Your task to perform on an android device: Open Google Chrome and click the shortcut for Amazon.com Image 0: 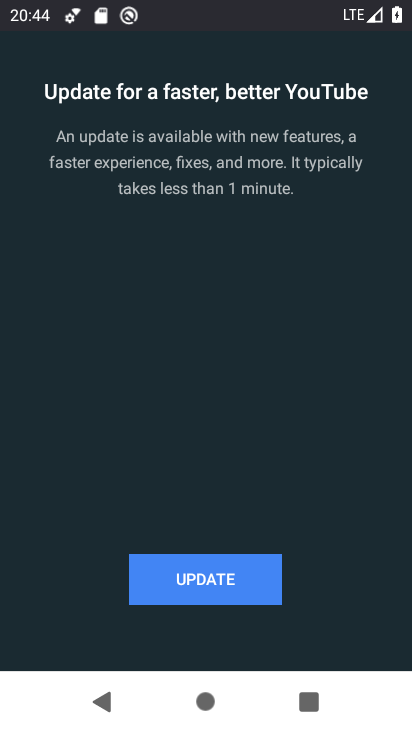
Step 0: press home button
Your task to perform on an android device: Open Google Chrome and click the shortcut for Amazon.com Image 1: 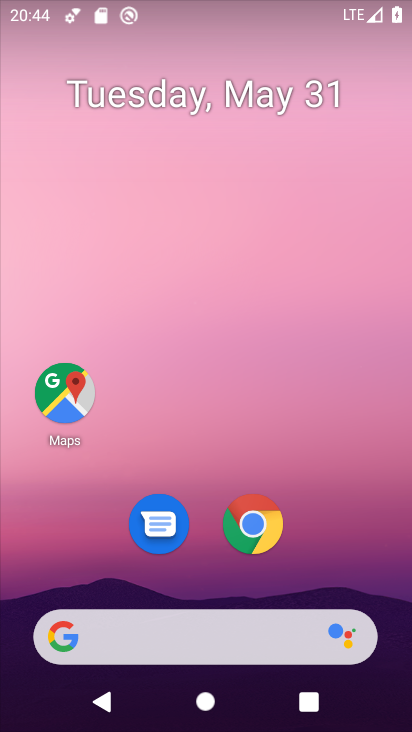
Step 1: click (256, 507)
Your task to perform on an android device: Open Google Chrome and click the shortcut for Amazon.com Image 2: 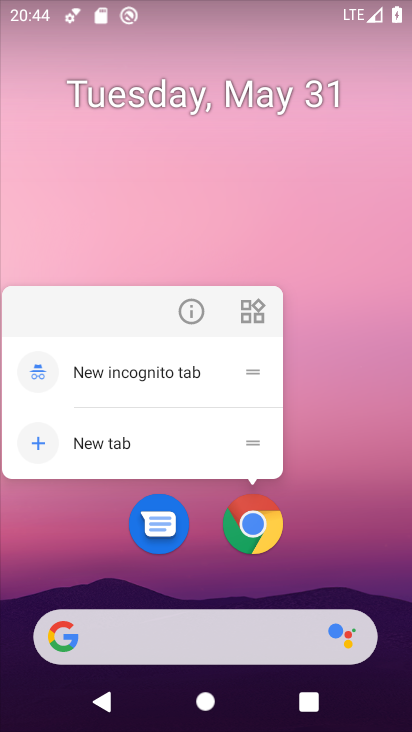
Step 2: click (256, 507)
Your task to perform on an android device: Open Google Chrome and click the shortcut for Amazon.com Image 3: 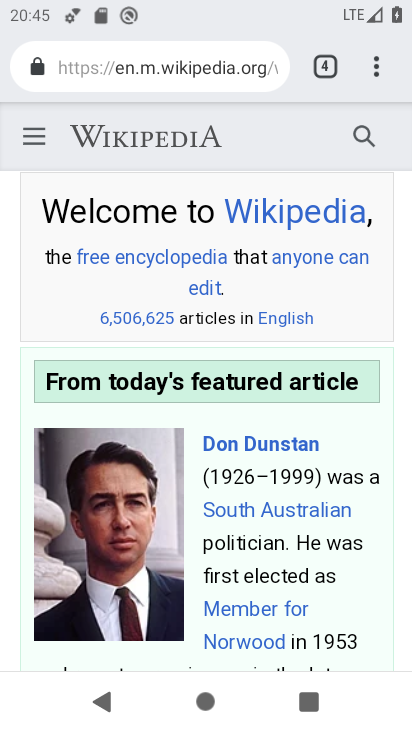
Step 3: click (374, 63)
Your task to perform on an android device: Open Google Chrome and click the shortcut for Amazon.com Image 4: 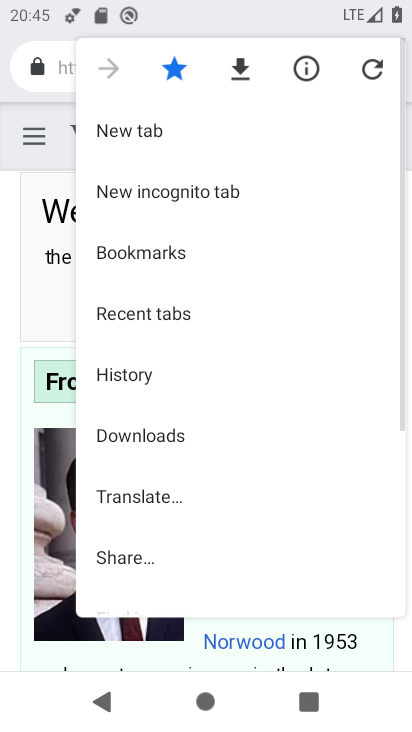
Step 4: click (304, 122)
Your task to perform on an android device: Open Google Chrome and click the shortcut for Amazon.com Image 5: 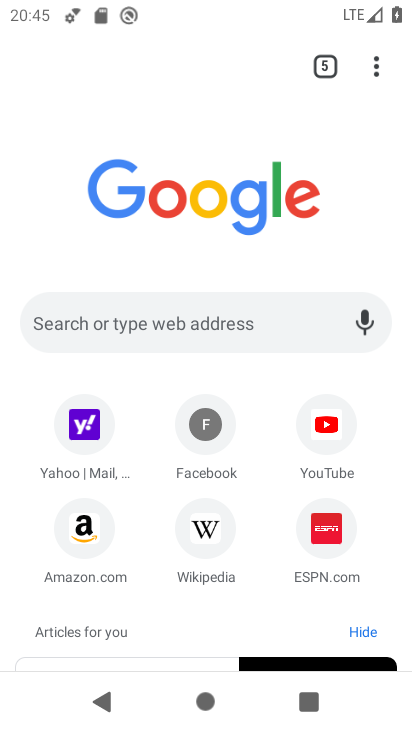
Step 5: click (79, 513)
Your task to perform on an android device: Open Google Chrome and click the shortcut for Amazon.com Image 6: 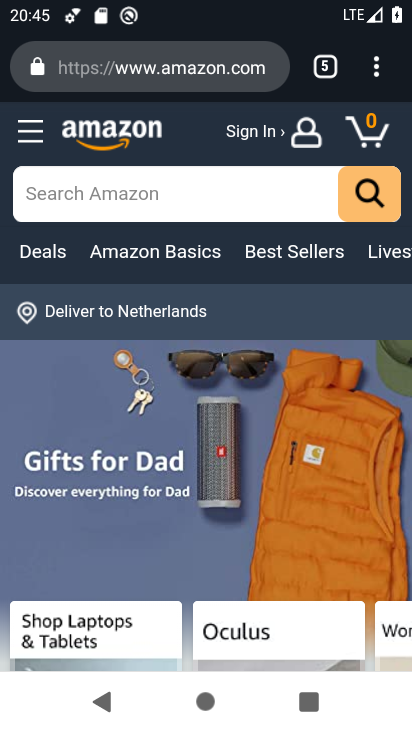
Step 6: task complete